Your task to perform on an android device: Show me recent news Image 0: 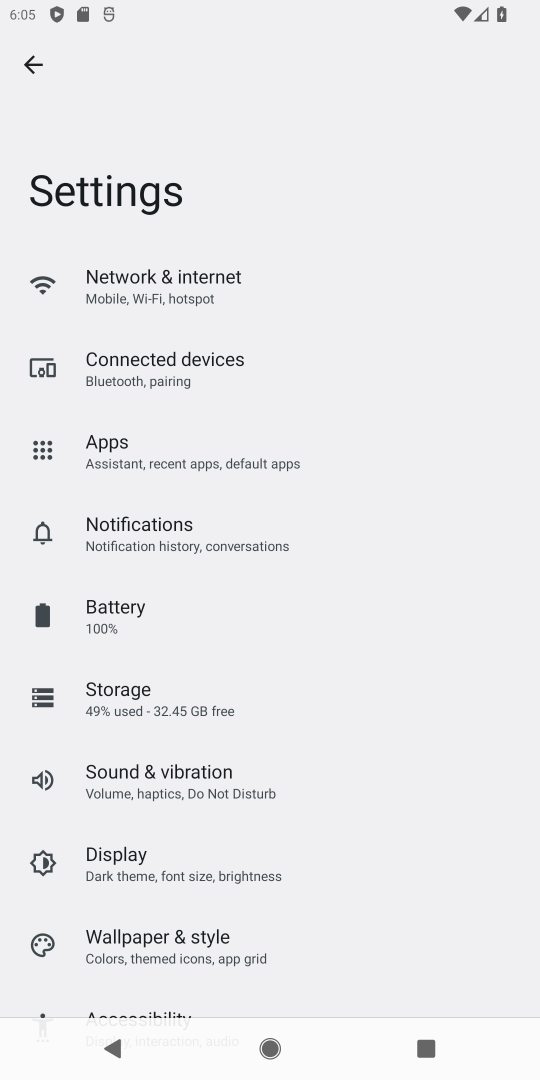
Step 0: press home button
Your task to perform on an android device: Show me recent news Image 1: 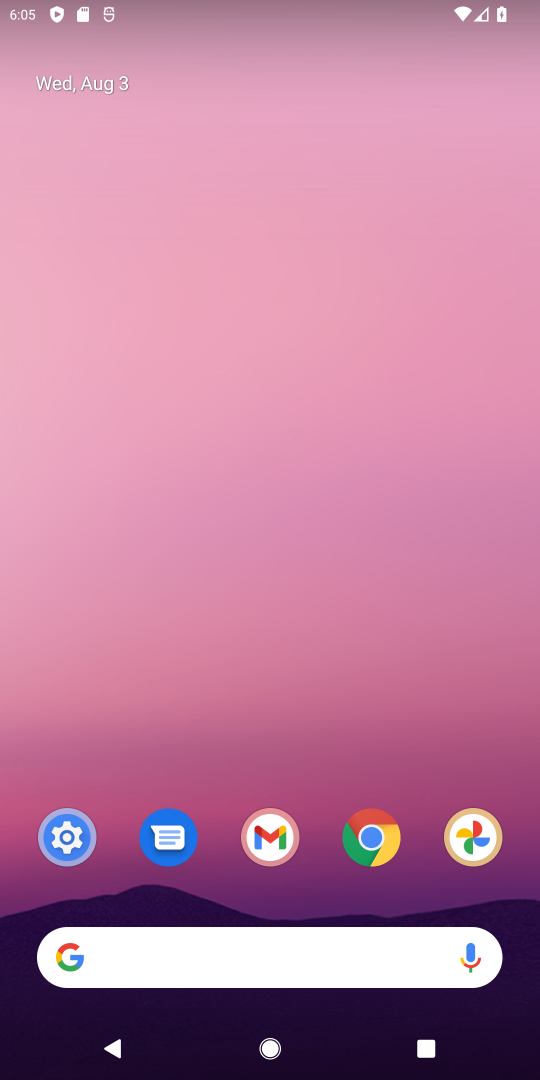
Step 1: click (76, 957)
Your task to perform on an android device: Show me recent news Image 2: 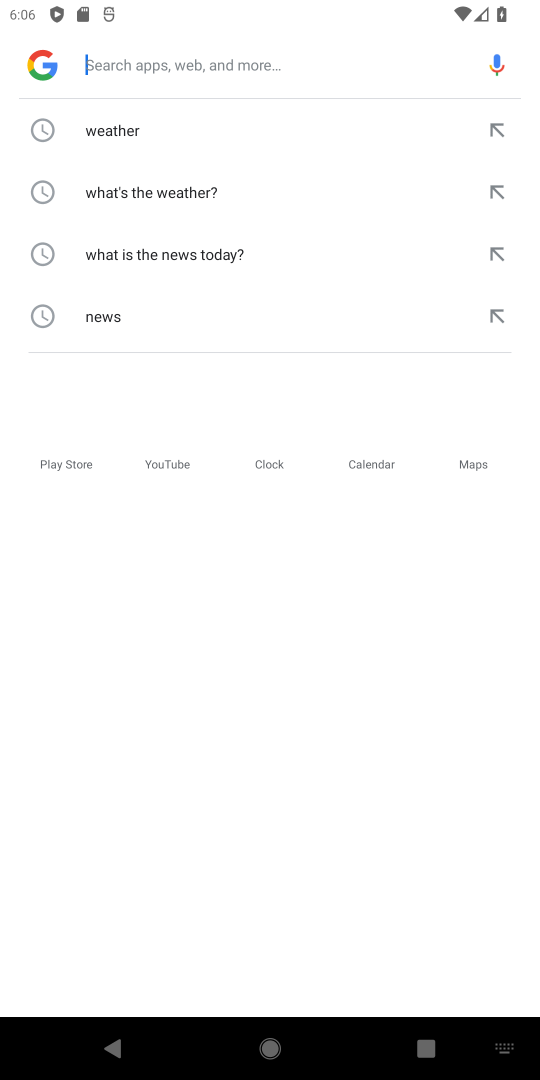
Step 2: type "recent news"
Your task to perform on an android device: Show me recent news Image 3: 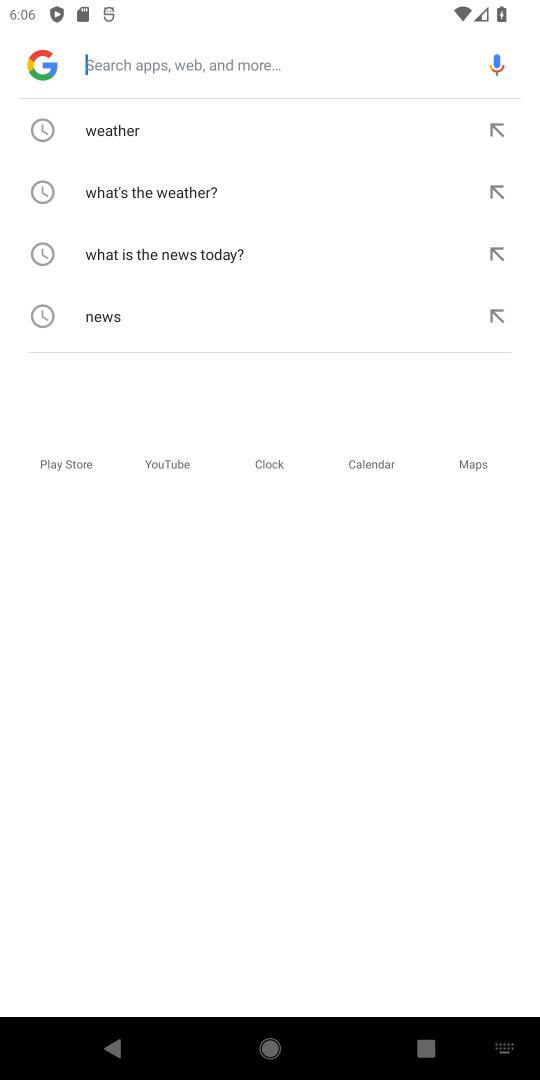
Step 3: click (159, 67)
Your task to perform on an android device: Show me recent news Image 4: 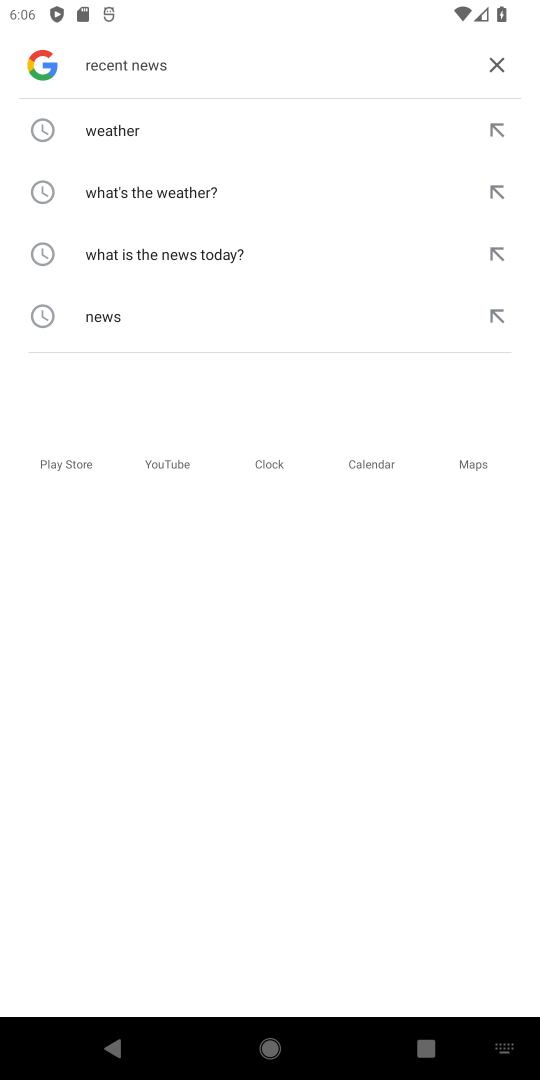
Step 4: press enter
Your task to perform on an android device: Show me recent news Image 5: 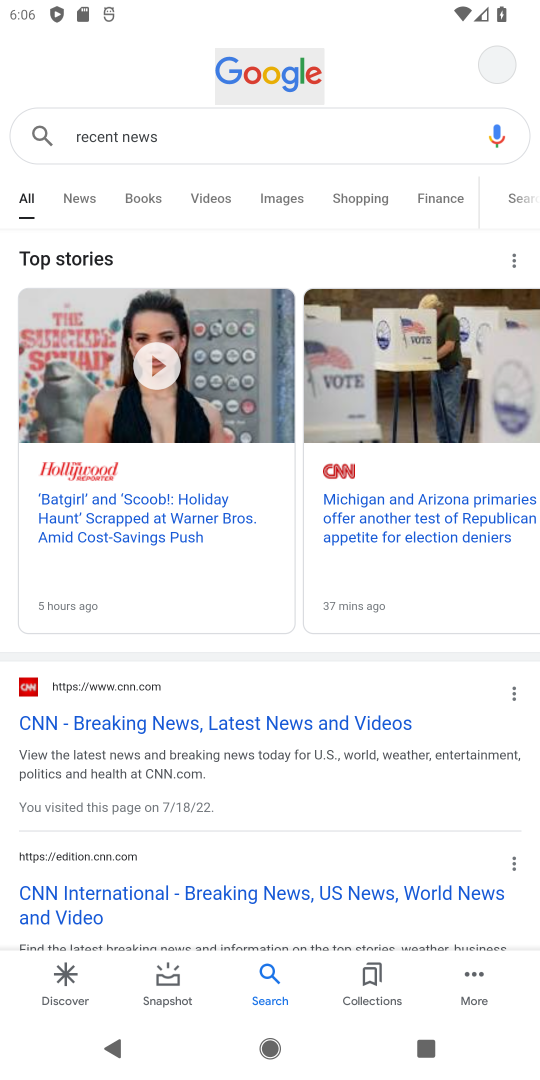
Step 5: task complete